Your task to perform on an android device: open a new tab in the chrome app Image 0: 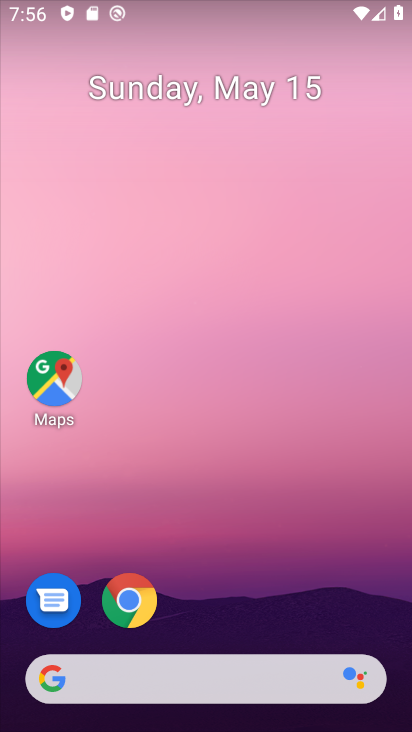
Step 0: click (130, 580)
Your task to perform on an android device: open a new tab in the chrome app Image 1: 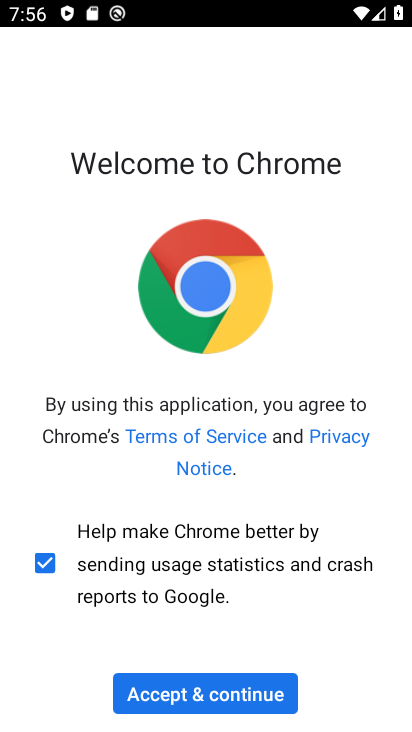
Step 1: click (196, 706)
Your task to perform on an android device: open a new tab in the chrome app Image 2: 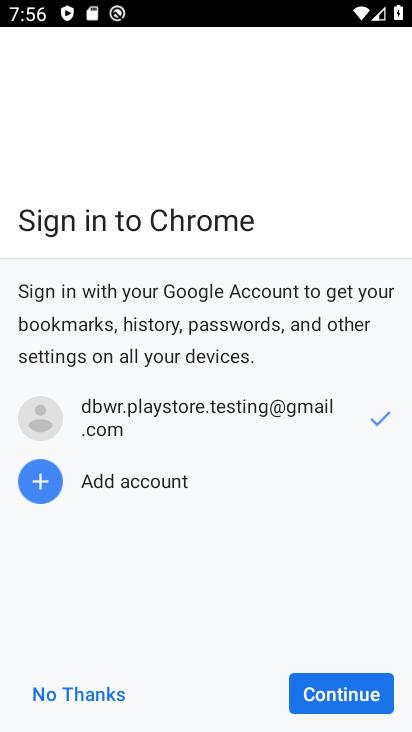
Step 2: click (351, 692)
Your task to perform on an android device: open a new tab in the chrome app Image 3: 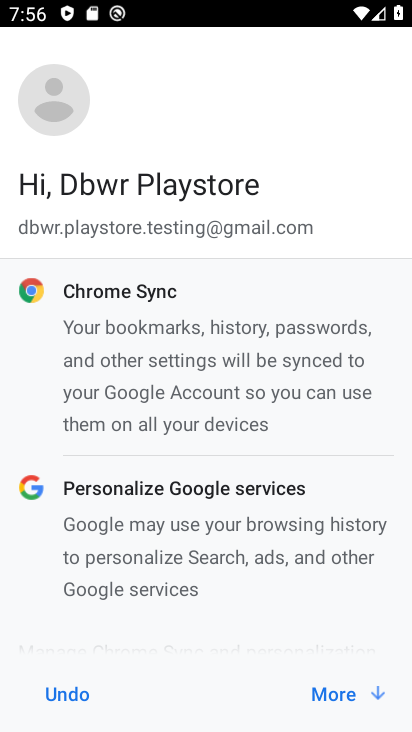
Step 3: click (351, 692)
Your task to perform on an android device: open a new tab in the chrome app Image 4: 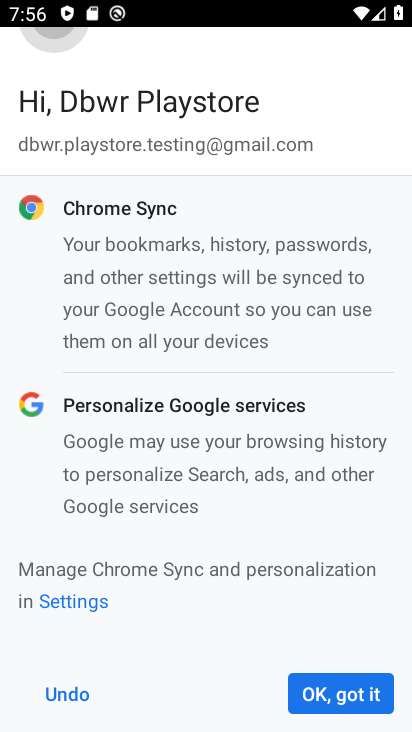
Step 4: click (351, 692)
Your task to perform on an android device: open a new tab in the chrome app Image 5: 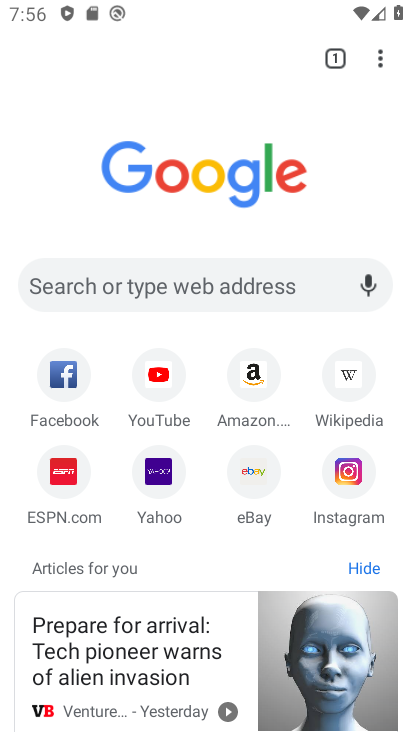
Step 5: click (375, 62)
Your task to perform on an android device: open a new tab in the chrome app Image 6: 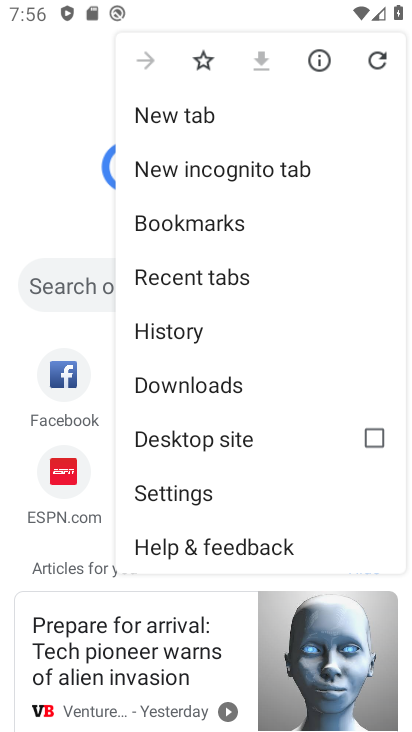
Step 6: click (171, 113)
Your task to perform on an android device: open a new tab in the chrome app Image 7: 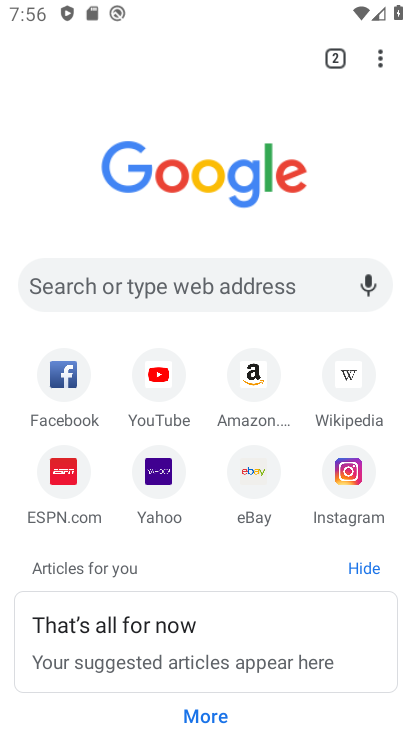
Step 7: task complete